Your task to perform on an android device: Open CNN.com Image 0: 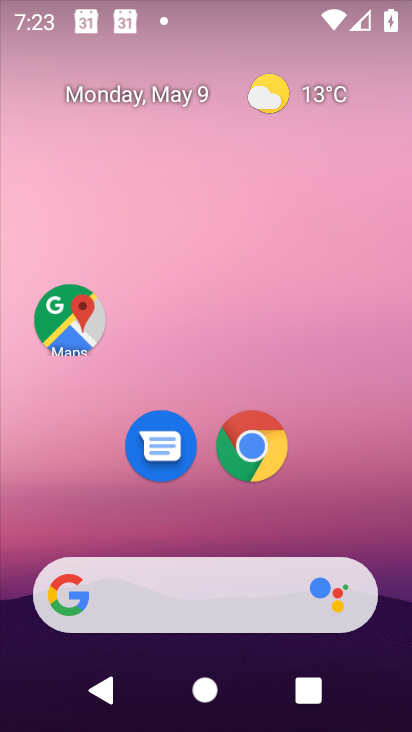
Step 0: click (249, 477)
Your task to perform on an android device: Open CNN.com Image 1: 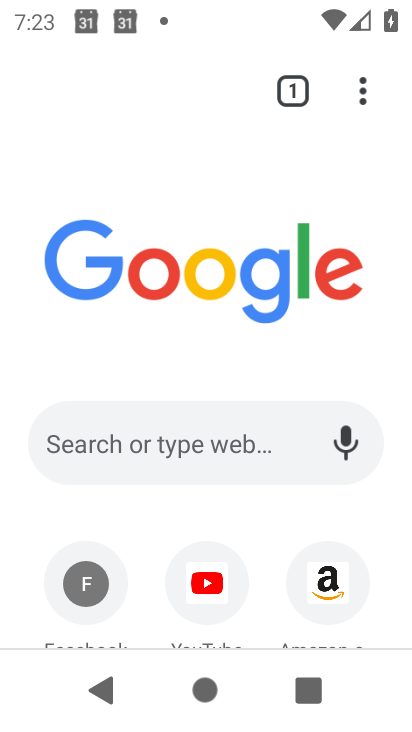
Step 1: click (190, 442)
Your task to perform on an android device: Open CNN.com Image 2: 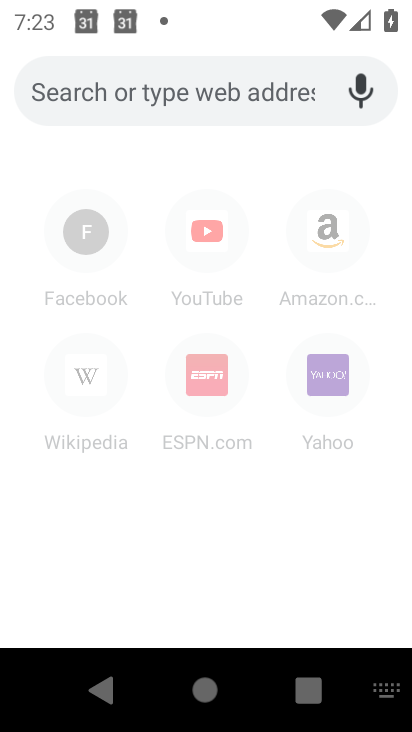
Step 2: type "cnn.com"
Your task to perform on an android device: Open CNN.com Image 3: 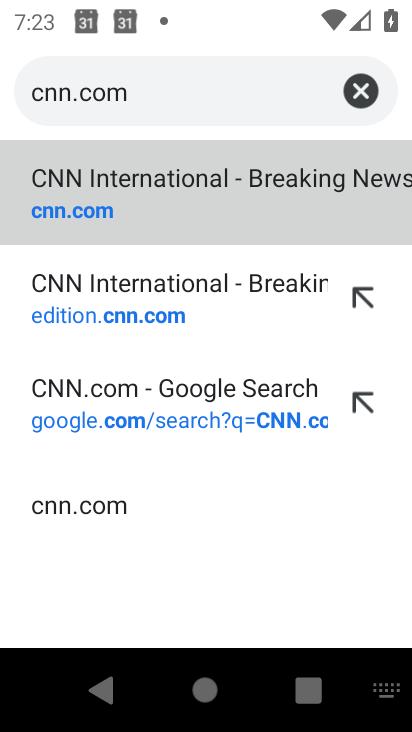
Step 3: click (78, 189)
Your task to perform on an android device: Open CNN.com Image 4: 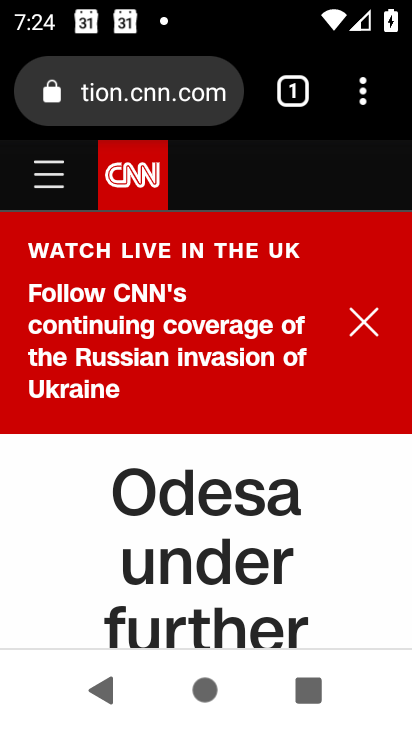
Step 4: task complete